Your task to perform on an android device: manage bookmarks in the chrome app Image 0: 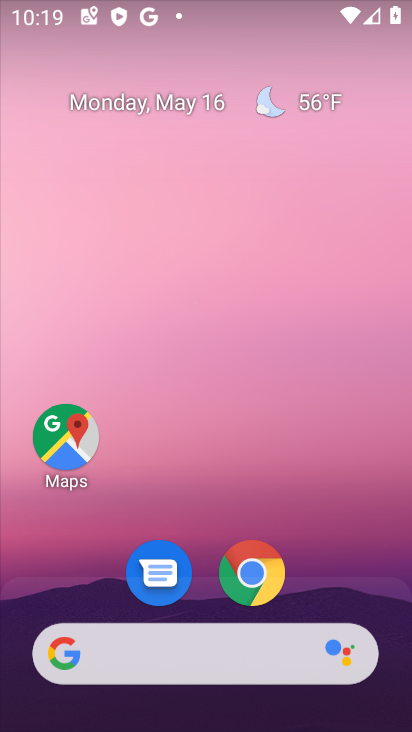
Step 0: click (262, 573)
Your task to perform on an android device: manage bookmarks in the chrome app Image 1: 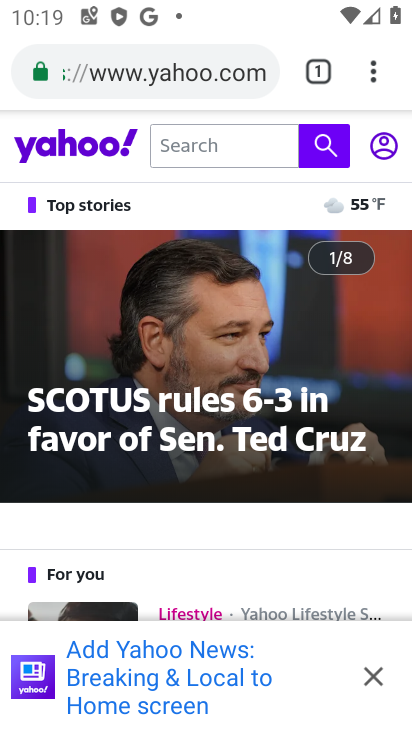
Step 1: click (378, 58)
Your task to perform on an android device: manage bookmarks in the chrome app Image 2: 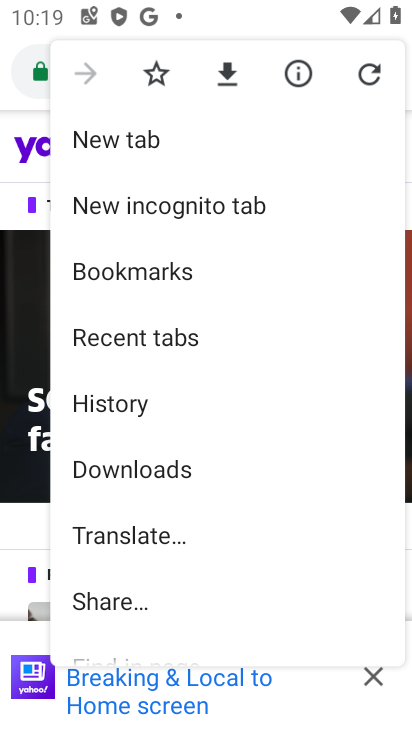
Step 2: click (133, 278)
Your task to perform on an android device: manage bookmarks in the chrome app Image 3: 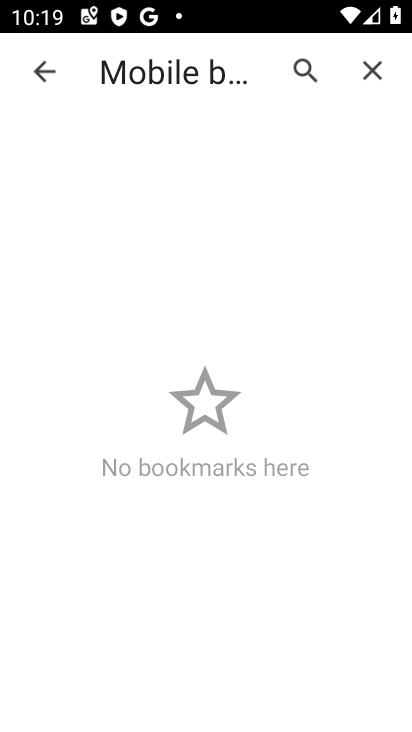
Step 3: task complete